Your task to perform on an android device: open app "Google Keep" (install if not already installed) Image 0: 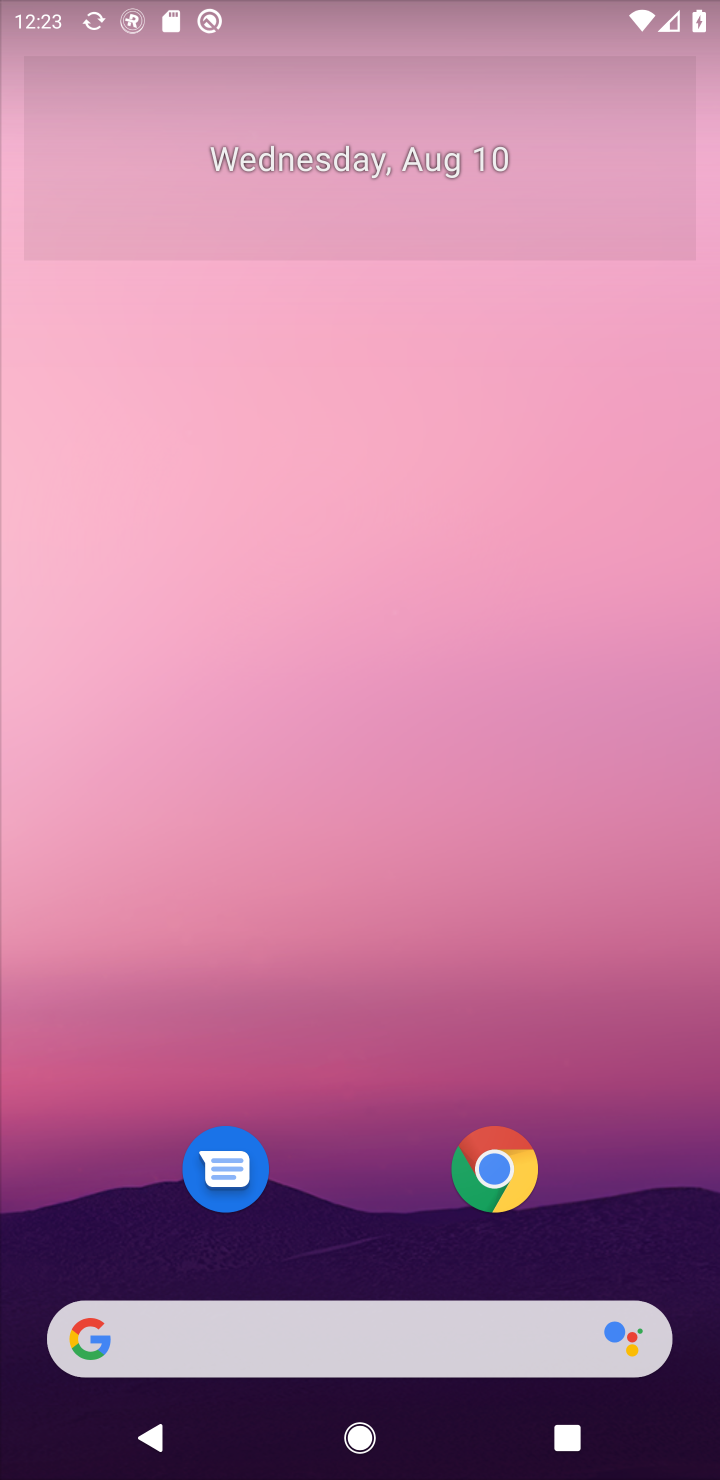
Step 0: press home button
Your task to perform on an android device: open app "Google Keep" (install if not already installed) Image 1: 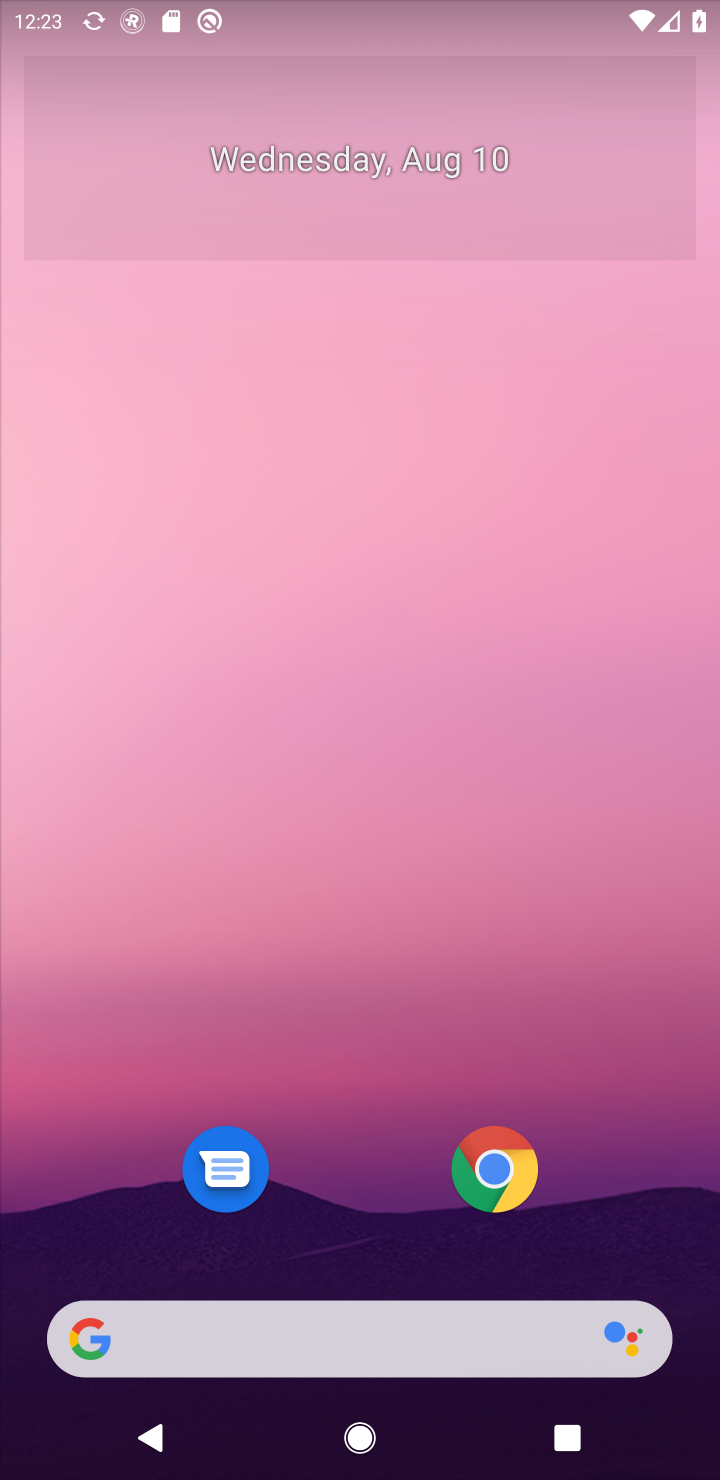
Step 1: drag from (608, 1018) to (595, 97)
Your task to perform on an android device: open app "Google Keep" (install if not already installed) Image 2: 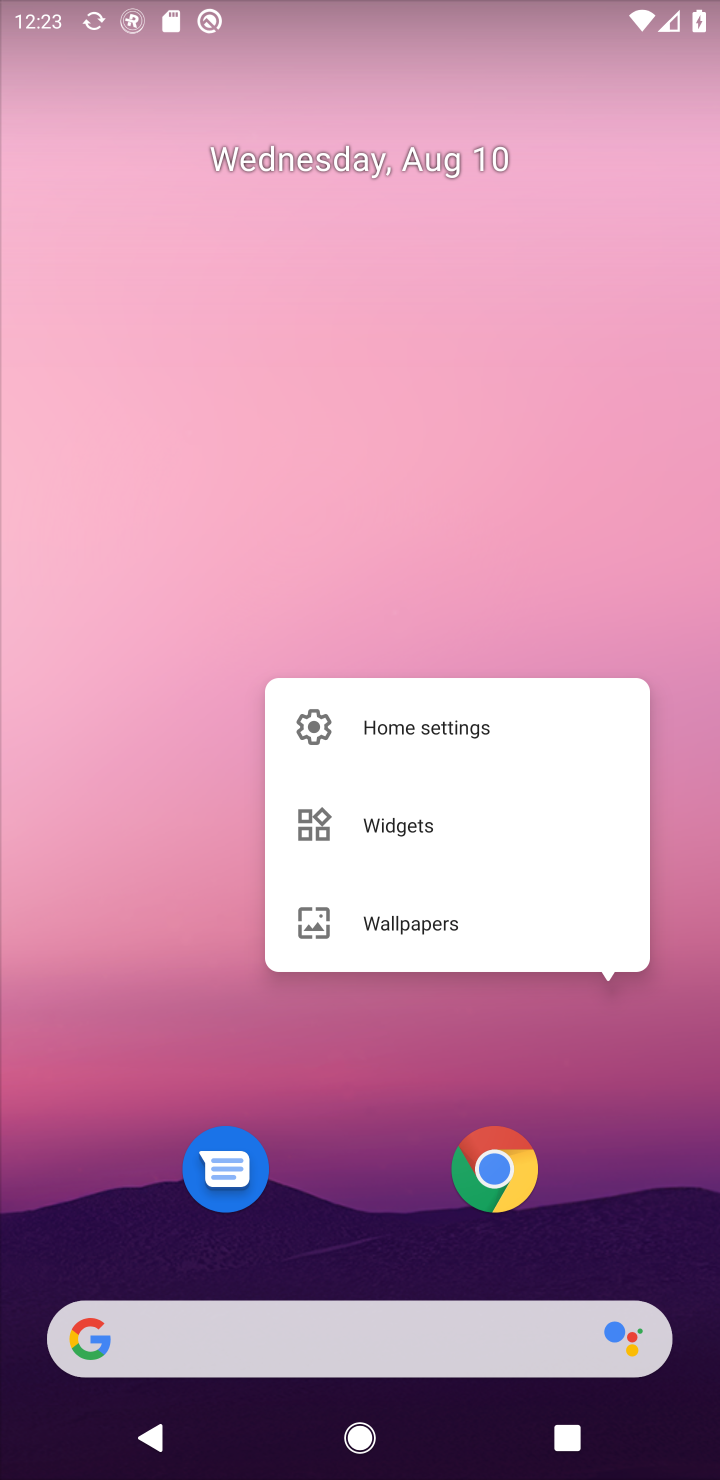
Step 2: click (634, 1078)
Your task to perform on an android device: open app "Google Keep" (install if not already installed) Image 3: 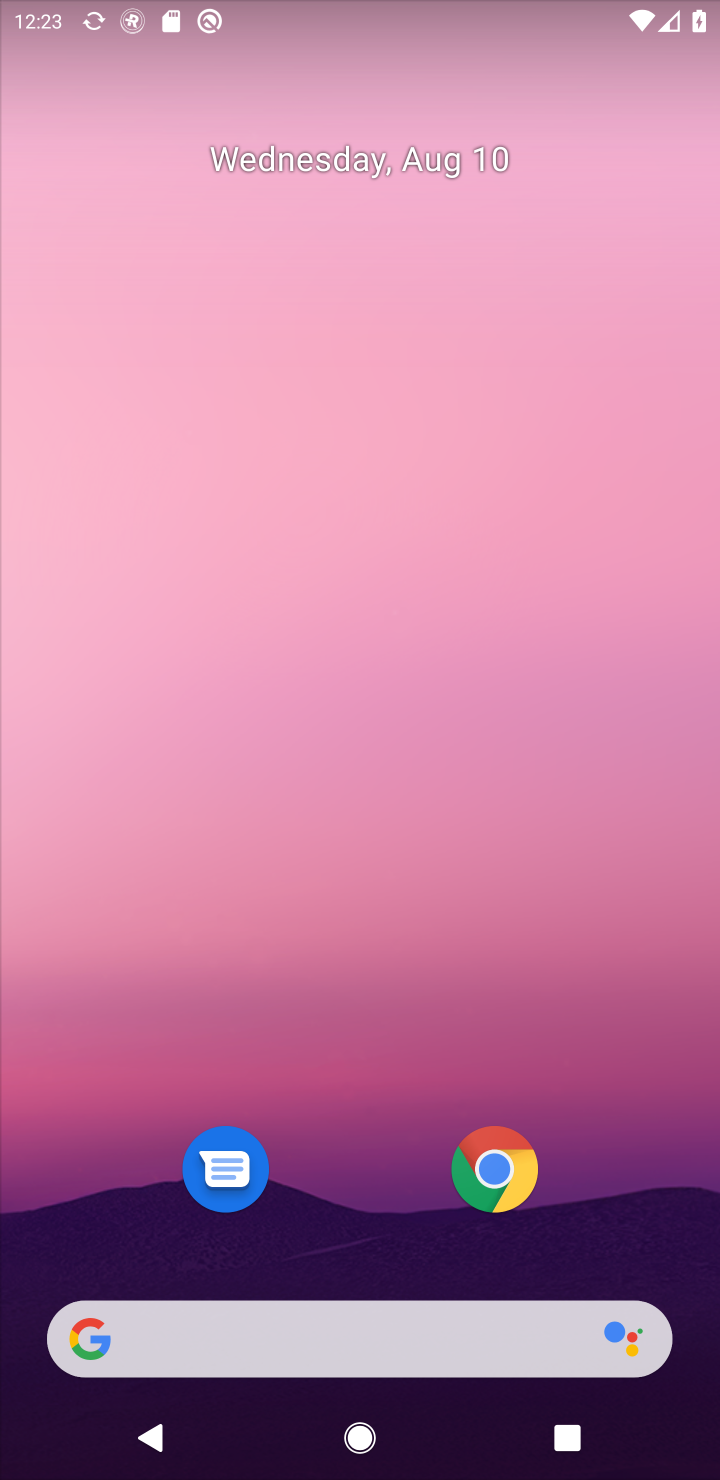
Step 3: drag from (620, 932) to (638, 90)
Your task to perform on an android device: open app "Google Keep" (install if not already installed) Image 4: 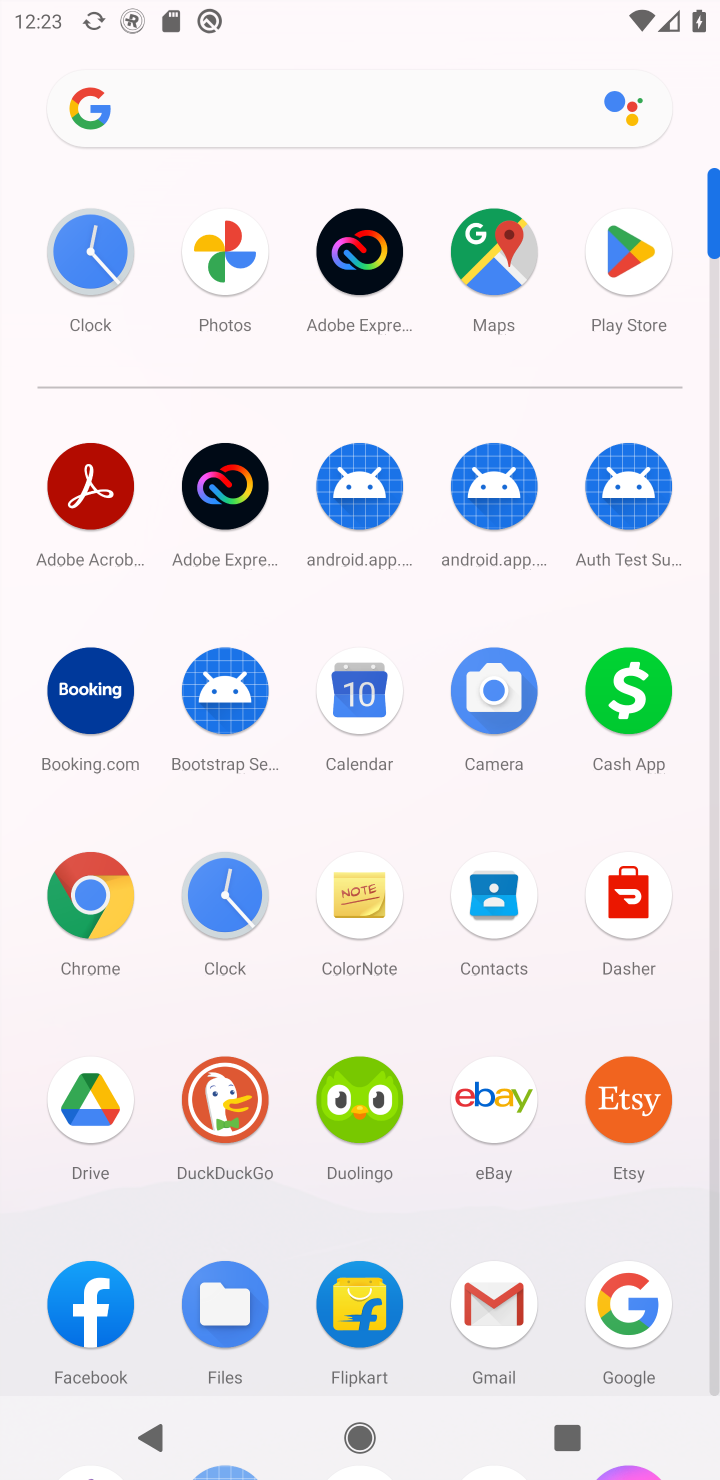
Step 4: click (639, 251)
Your task to perform on an android device: open app "Google Keep" (install if not already installed) Image 5: 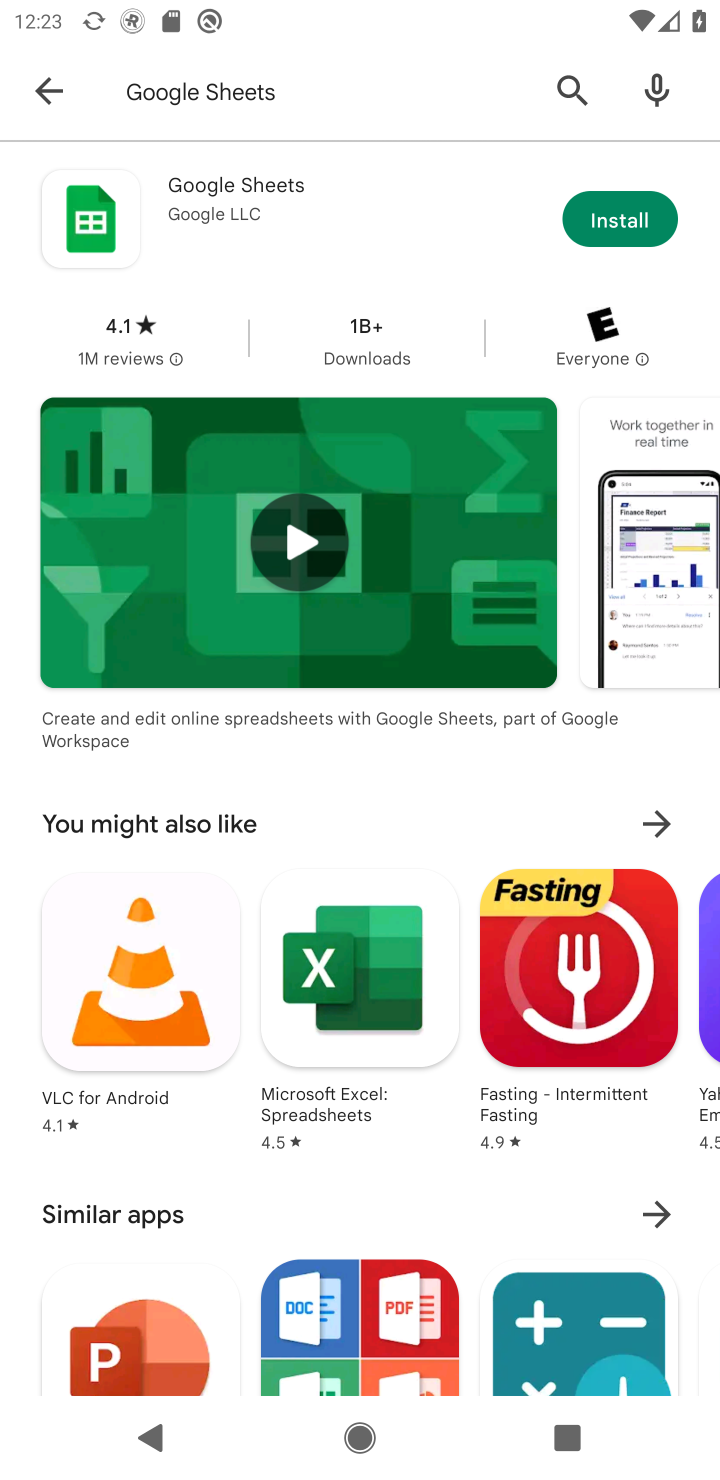
Step 5: click (578, 93)
Your task to perform on an android device: open app "Google Keep" (install if not already installed) Image 6: 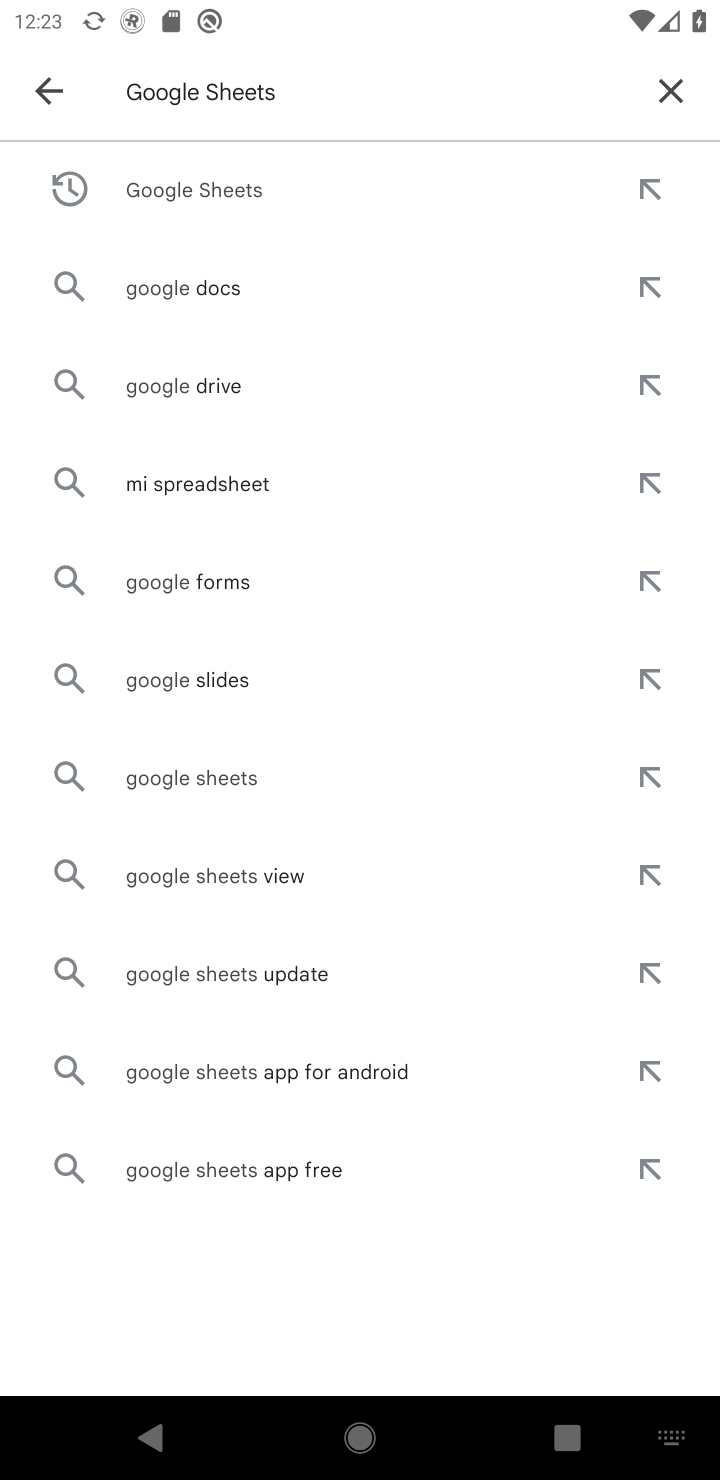
Step 6: click (683, 95)
Your task to perform on an android device: open app "Google Keep" (install if not already installed) Image 7: 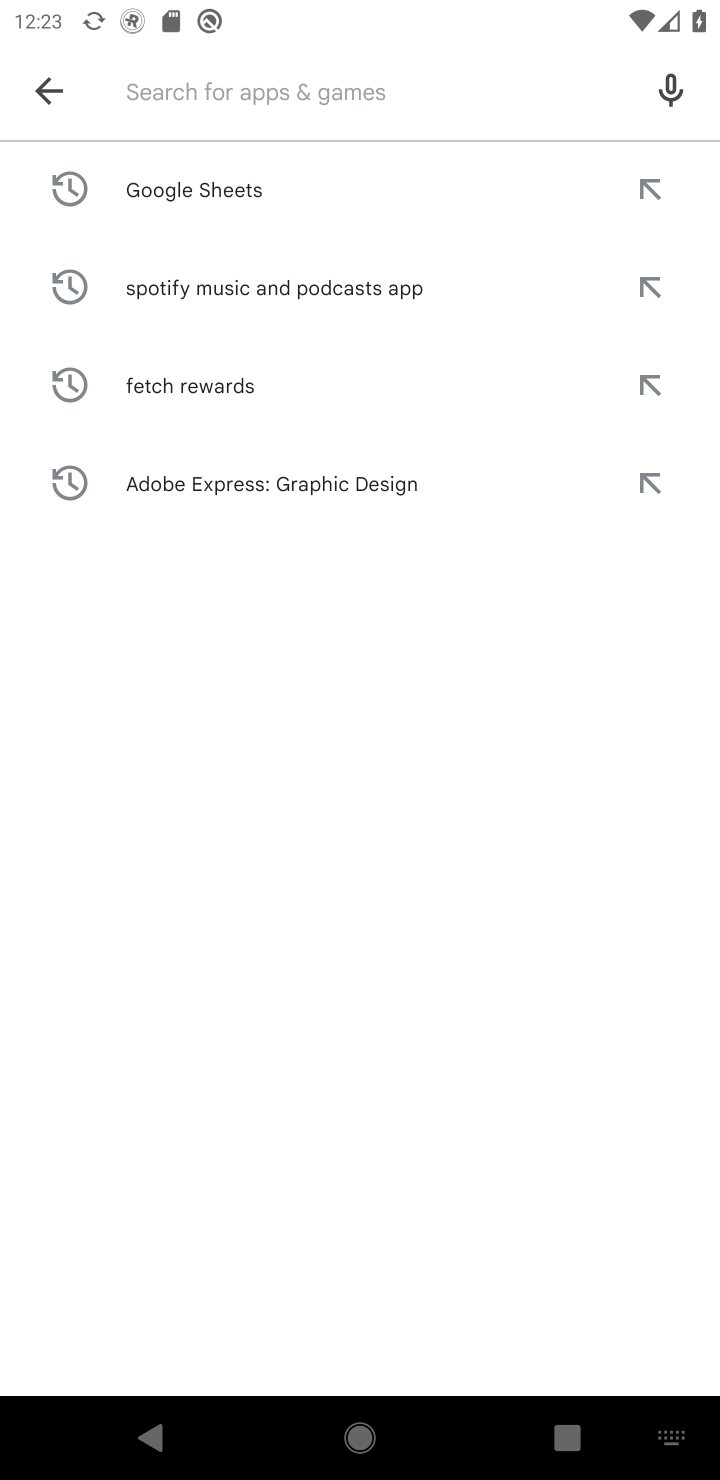
Step 7: type "google keep"
Your task to perform on an android device: open app "Google Keep" (install if not already installed) Image 8: 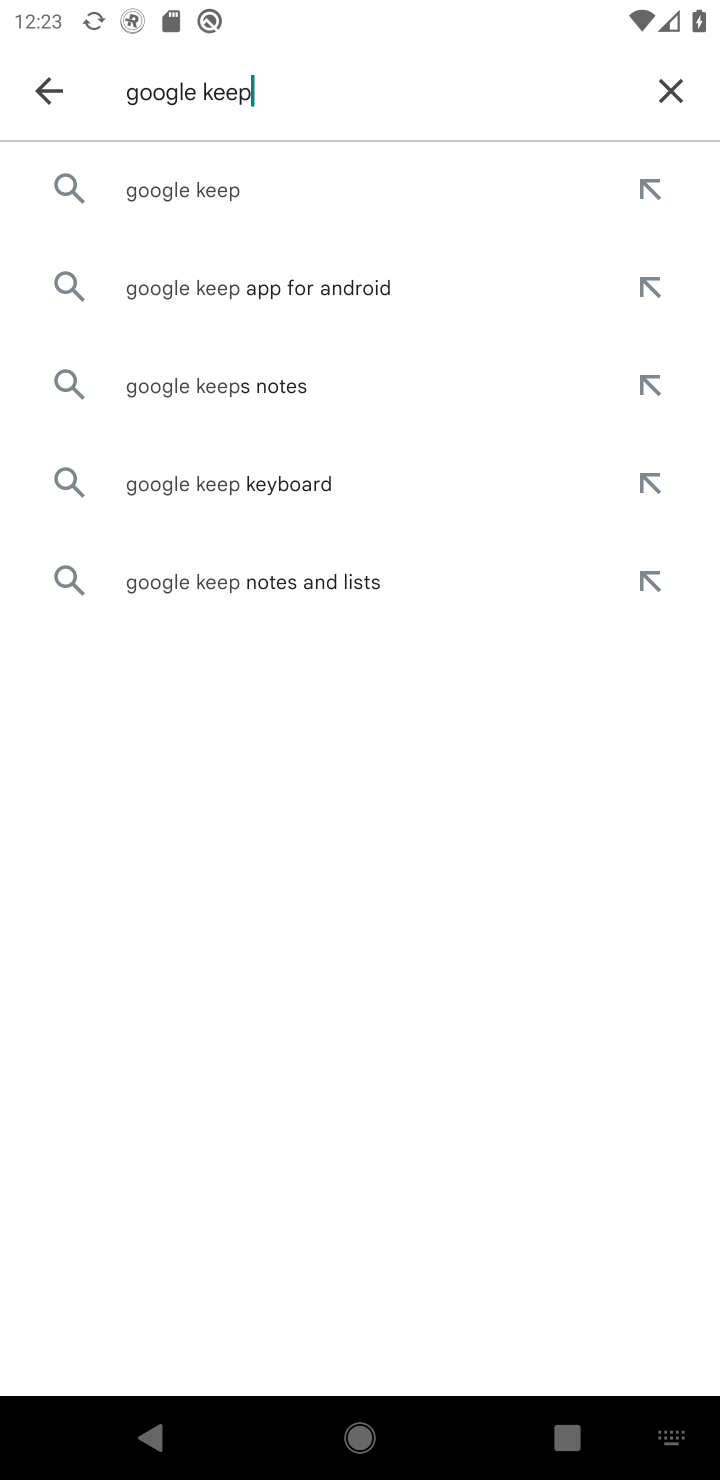
Step 8: click (264, 182)
Your task to perform on an android device: open app "Google Keep" (install if not already installed) Image 9: 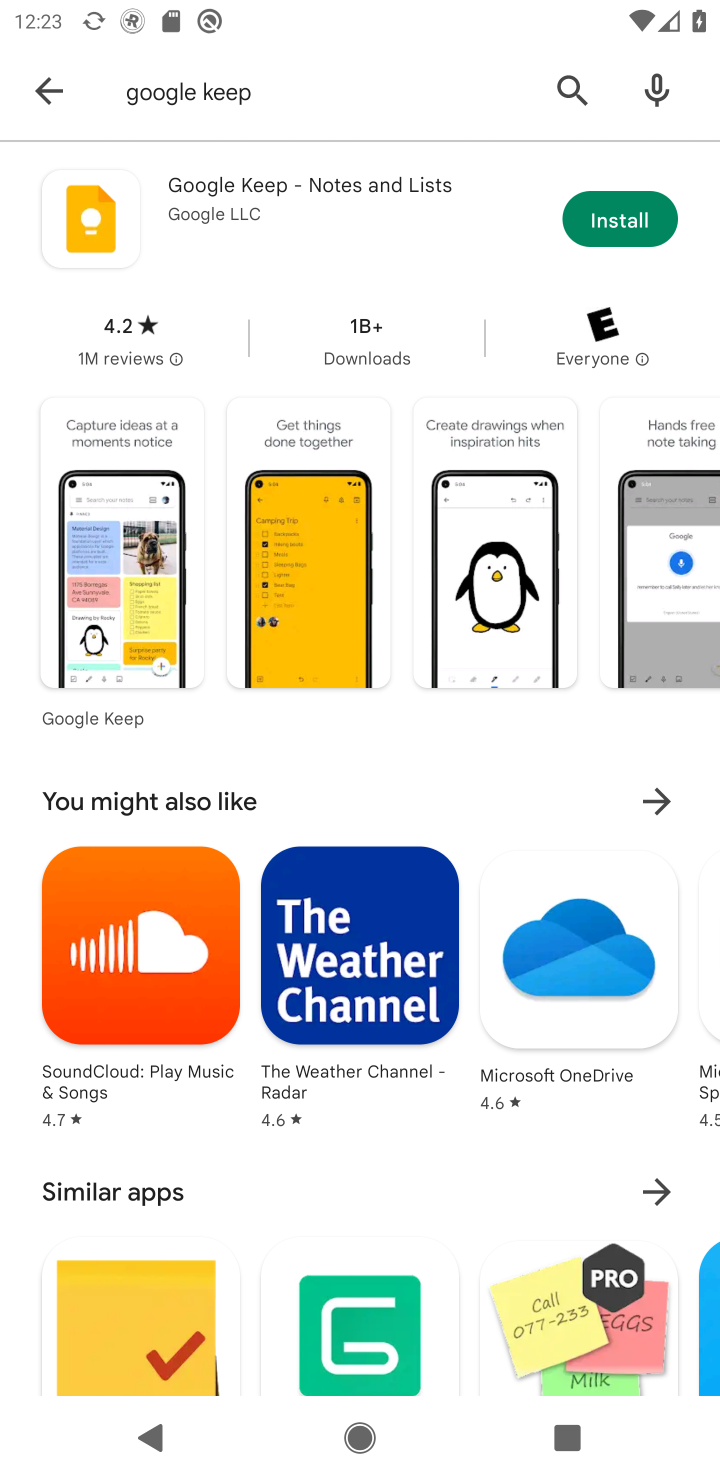
Step 9: click (631, 223)
Your task to perform on an android device: open app "Google Keep" (install if not already installed) Image 10: 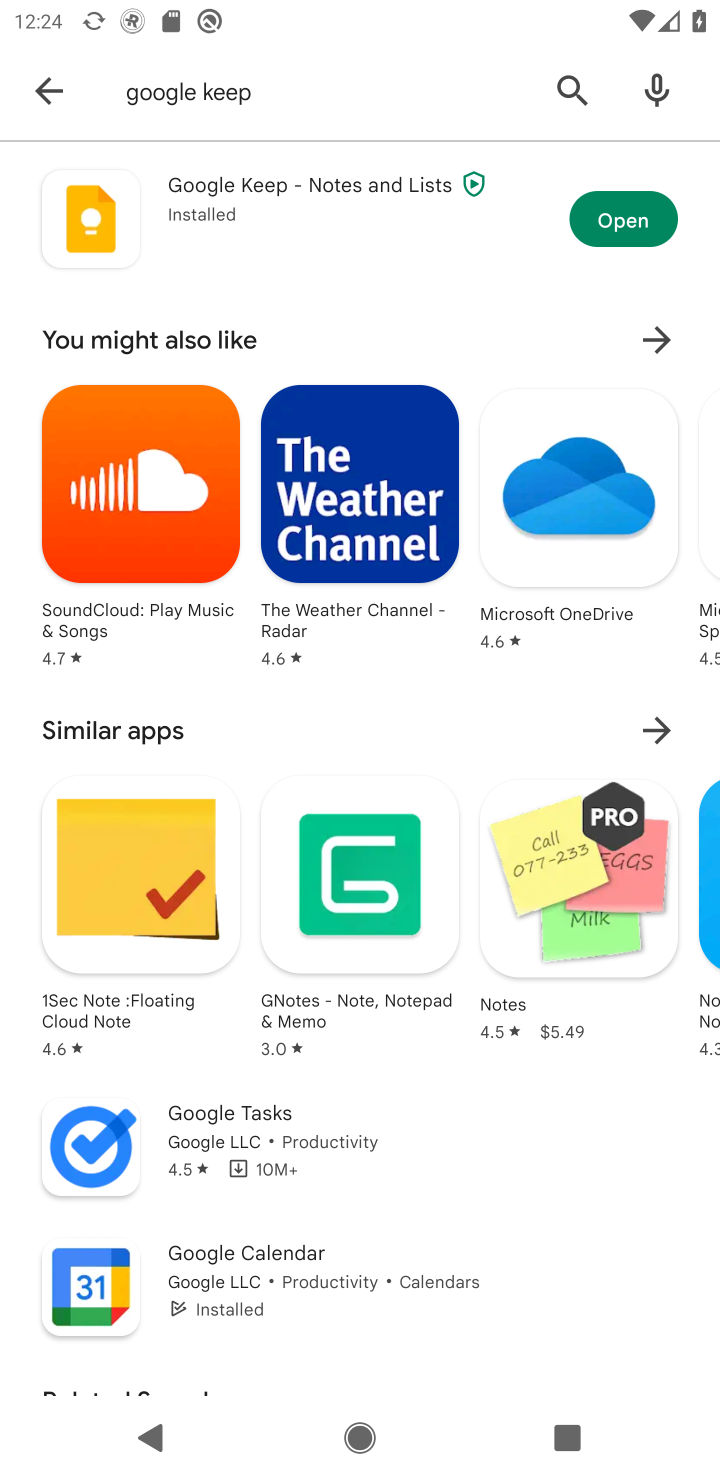
Step 10: click (623, 228)
Your task to perform on an android device: open app "Google Keep" (install if not already installed) Image 11: 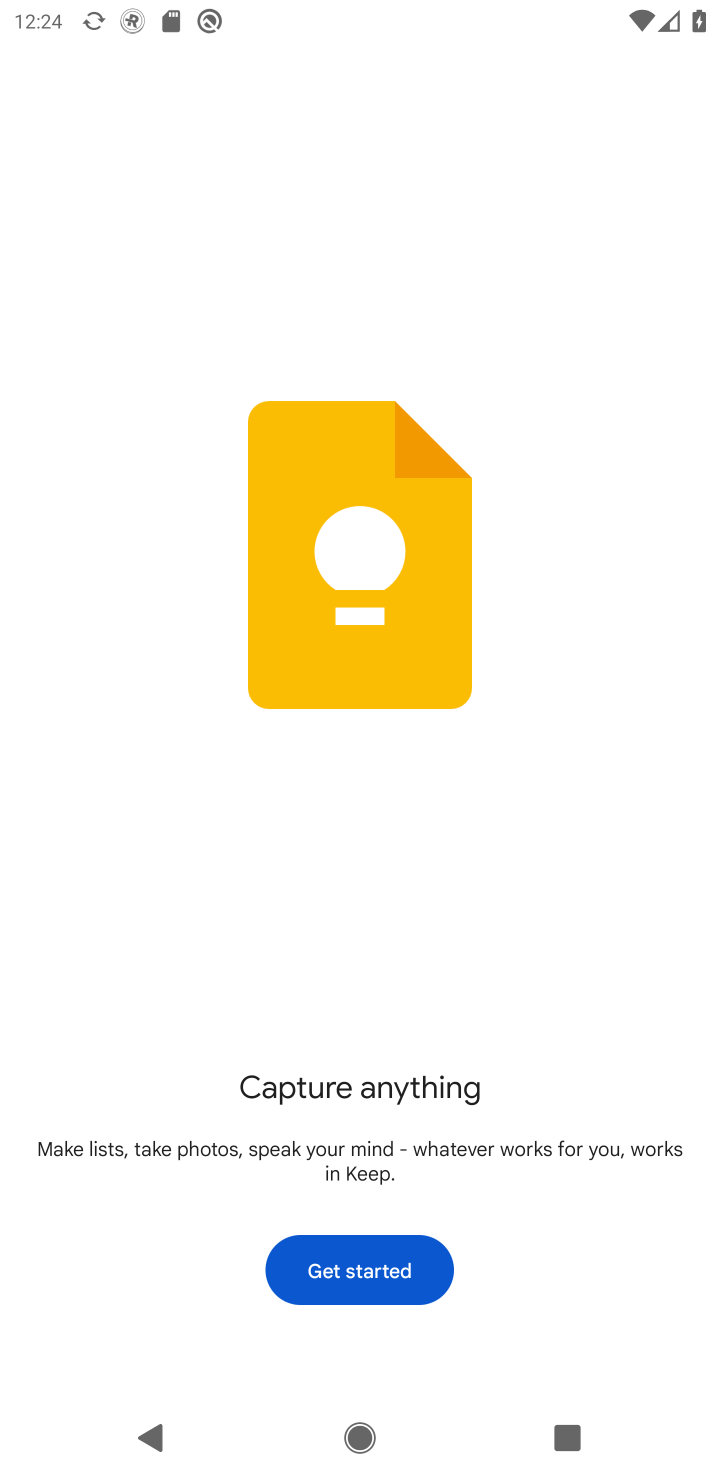
Step 11: task complete